Your task to perform on an android device: clear all cookies in the chrome app Image 0: 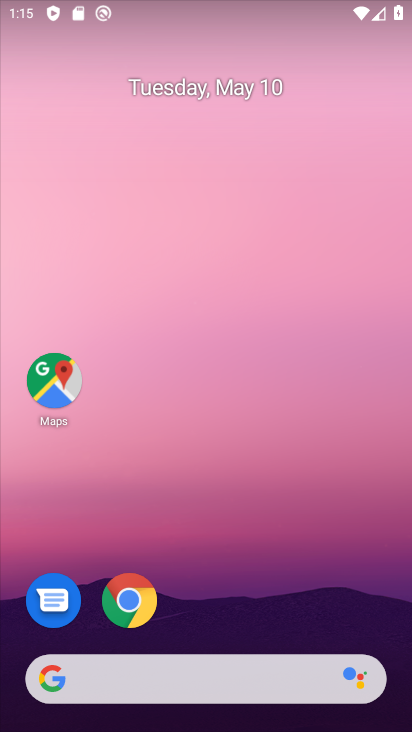
Step 0: click (137, 604)
Your task to perform on an android device: clear all cookies in the chrome app Image 1: 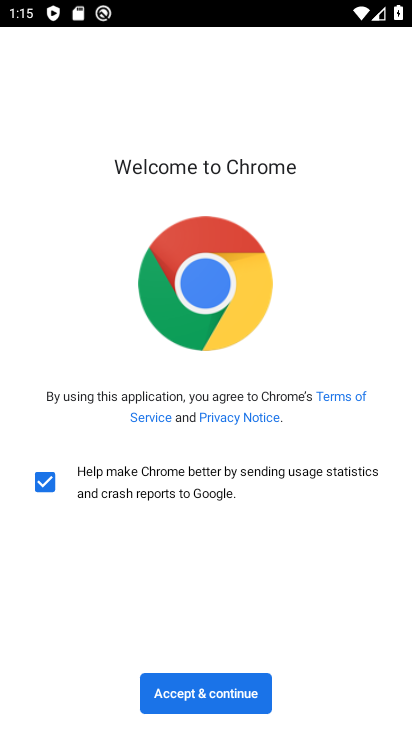
Step 1: click (195, 702)
Your task to perform on an android device: clear all cookies in the chrome app Image 2: 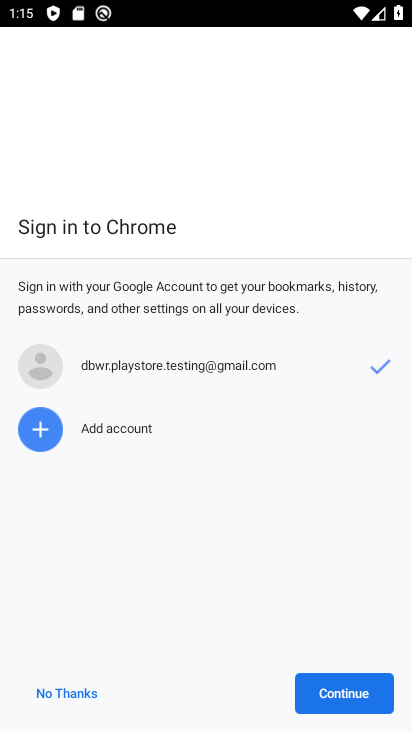
Step 2: click (353, 692)
Your task to perform on an android device: clear all cookies in the chrome app Image 3: 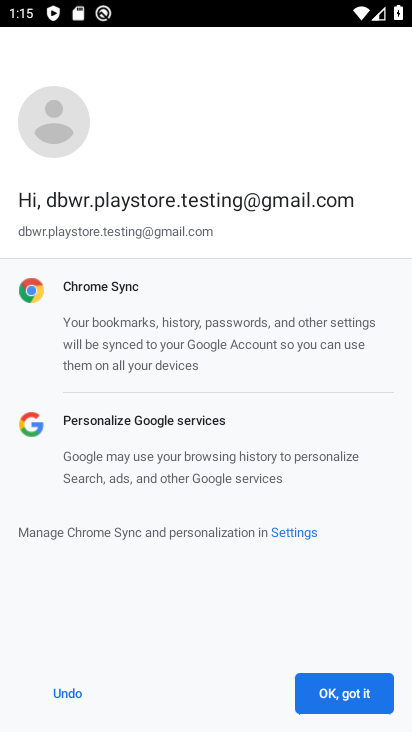
Step 3: click (333, 701)
Your task to perform on an android device: clear all cookies in the chrome app Image 4: 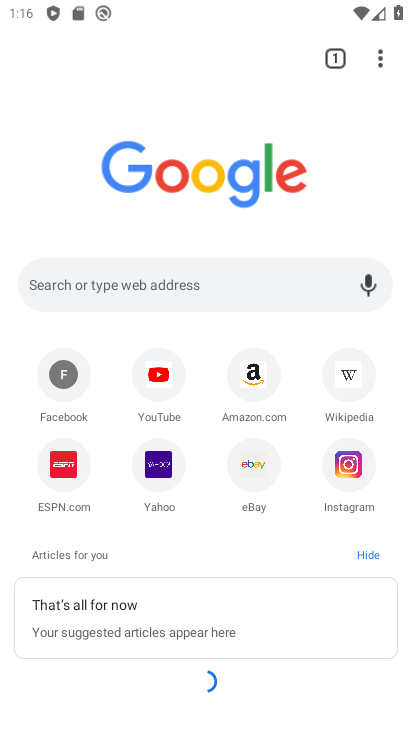
Step 4: click (371, 60)
Your task to perform on an android device: clear all cookies in the chrome app Image 5: 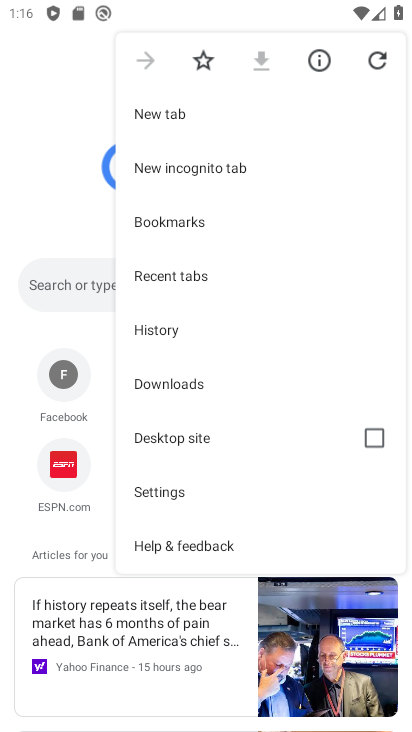
Step 5: click (194, 500)
Your task to perform on an android device: clear all cookies in the chrome app Image 6: 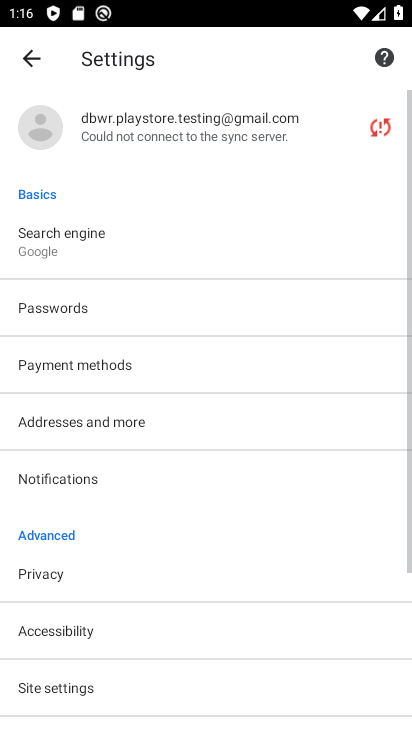
Step 6: click (123, 570)
Your task to perform on an android device: clear all cookies in the chrome app Image 7: 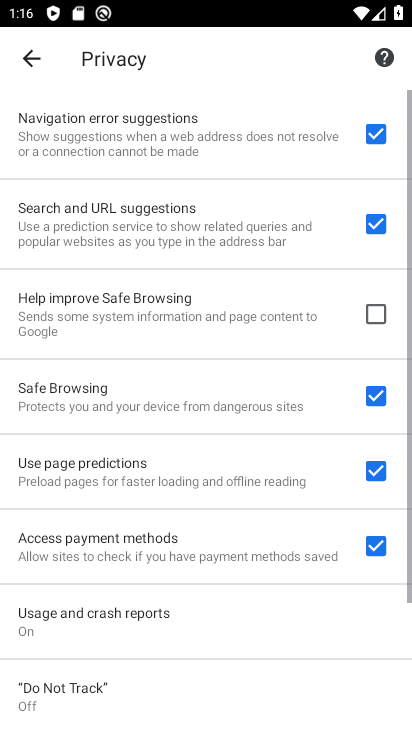
Step 7: drag from (207, 567) to (263, 70)
Your task to perform on an android device: clear all cookies in the chrome app Image 8: 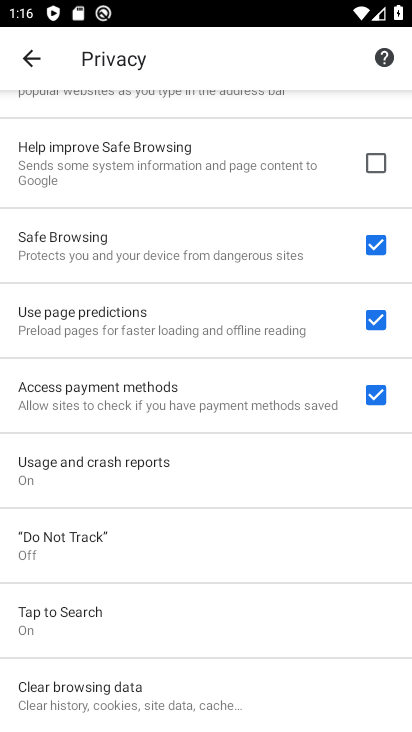
Step 8: click (129, 687)
Your task to perform on an android device: clear all cookies in the chrome app Image 9: 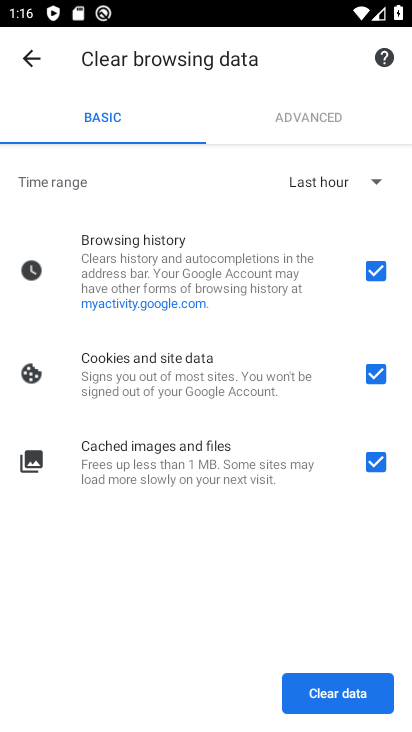
Step 9: click (373, 458)
Your task to perform on an android device: clear all cookies in the chrome app Image 10: 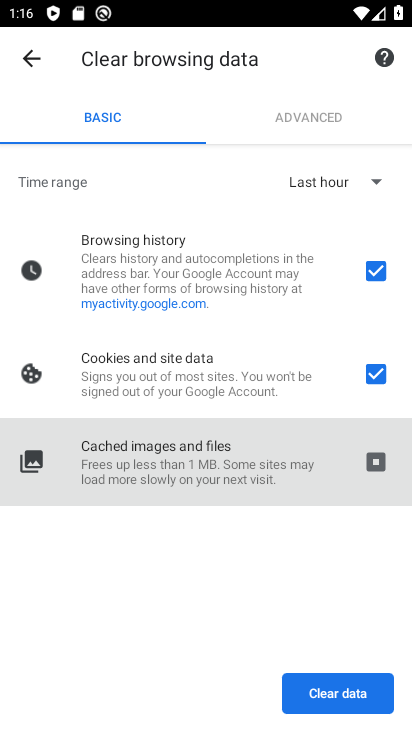
Step 10: click (376, 270)
Your task to perform on an android device: clear all cookies in the chrome app Image 11: 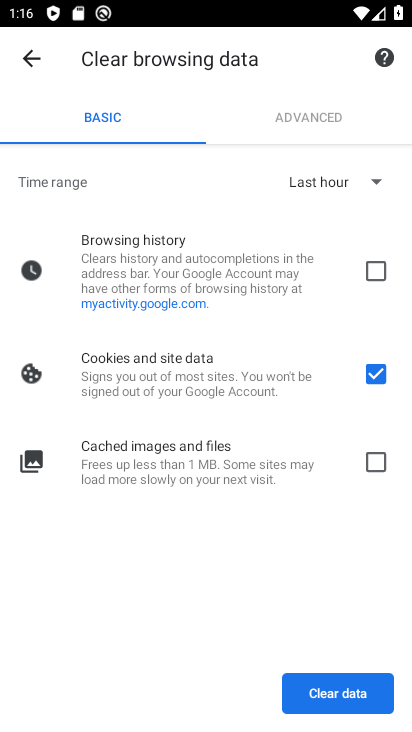
Step 11: click (325, 700)
Your task to perform on an android device: clear all cookies in the chrome app Image 12: 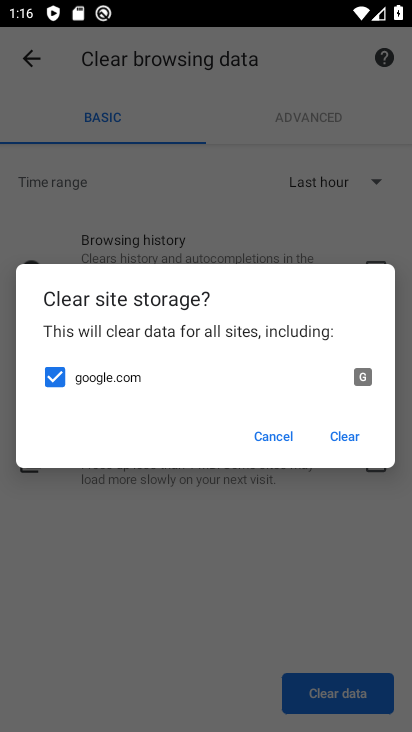
Step 12: click (351, 434)
Your task to perform on an android device: clear all cookies in the chrome app Image 13: 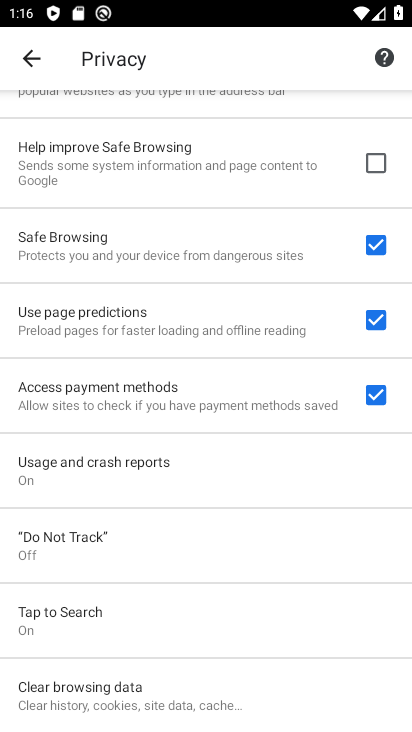
Step 13: task complete